Your task to perform on an android device: Open Yahoo.com Image 0: 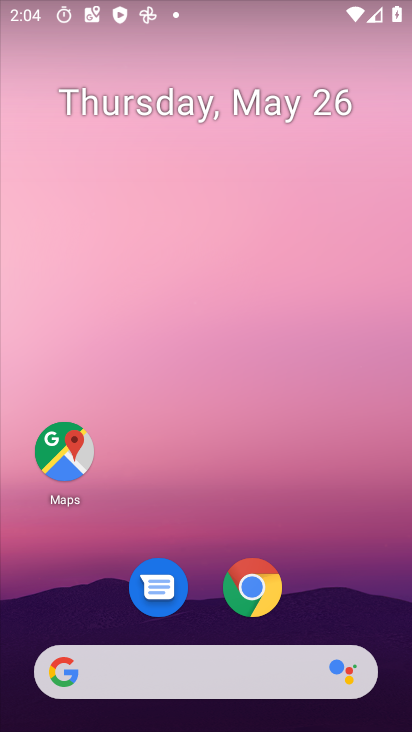
Step 0: drag from (377, 609) to (377, 172)
Your task to perform on an android device: Open Yahoo.com Image 1: 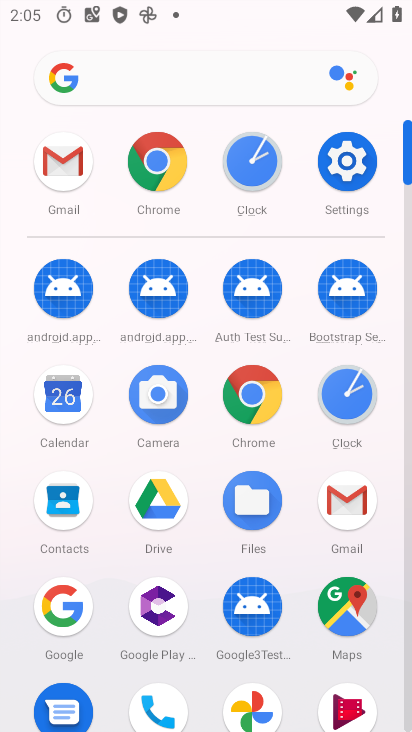
Step 1: click (257, 402)
Your task to perform on an android device: Open Yahoo.com Image 2: 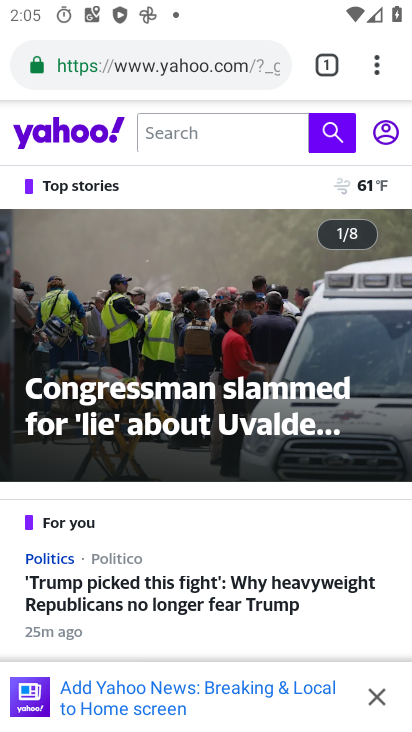
Step 2: task complete